Your task to perform on an android device: change notifications settings Image 0: 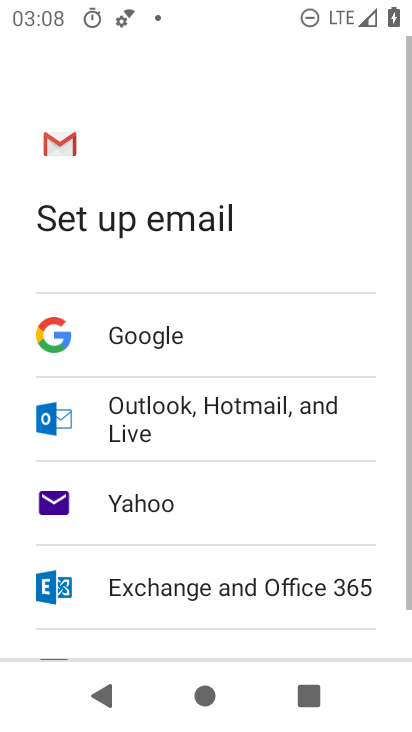
Step 0: press home button
Your task to perform on an android device: change notifications settings Image 1: 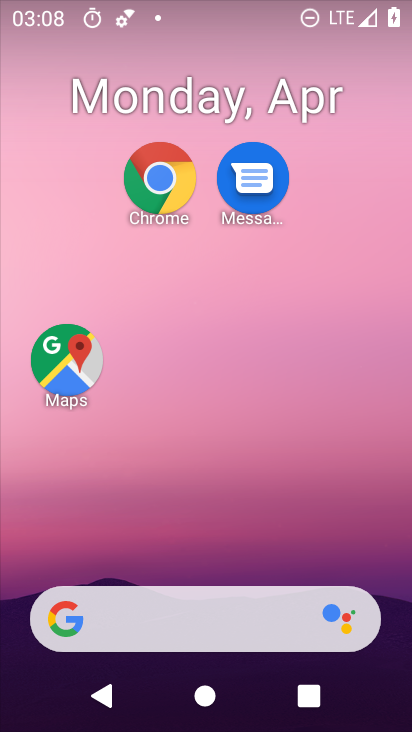
Step 1: drag from (269, 587) to (366, 1)
Your task to perform on an android device: change notifications settings Image 2: 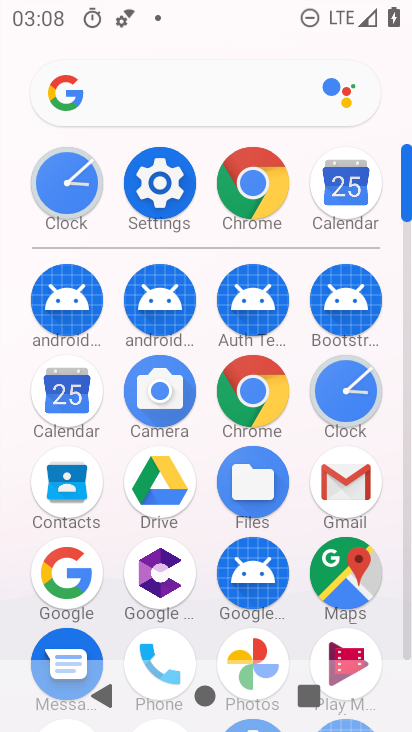
Step 2: drag from (215, 485) to (264, 70)
Your task to perform on an android device: change notifications settings Image 3: 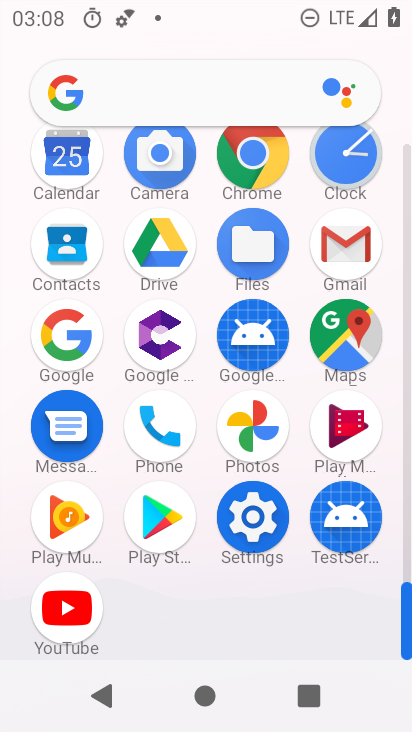
Step 3: click (244, 532)
Your task to perform on an android device: change notifications settings Image 4: 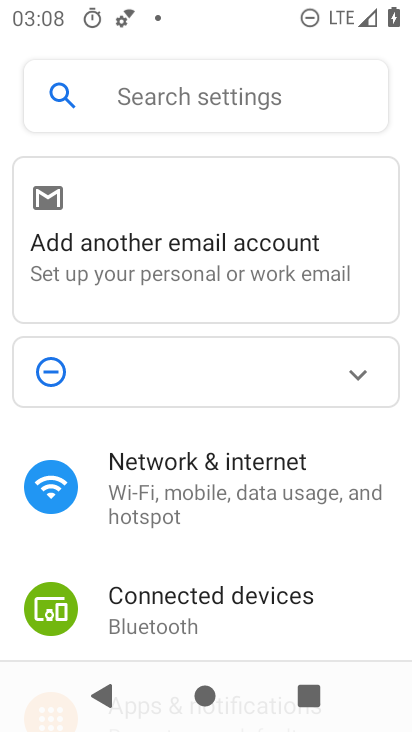
Step 4: drag from (278, 583) to (302, 79)
Your task to perform on an android device: change notifications settings Image 5: 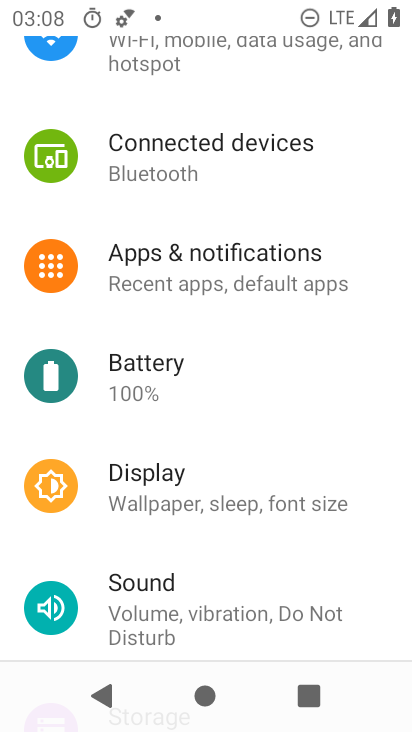
Step 5: click (281, 277)
Your task to perform on an android device: change notifications settings Image 6: 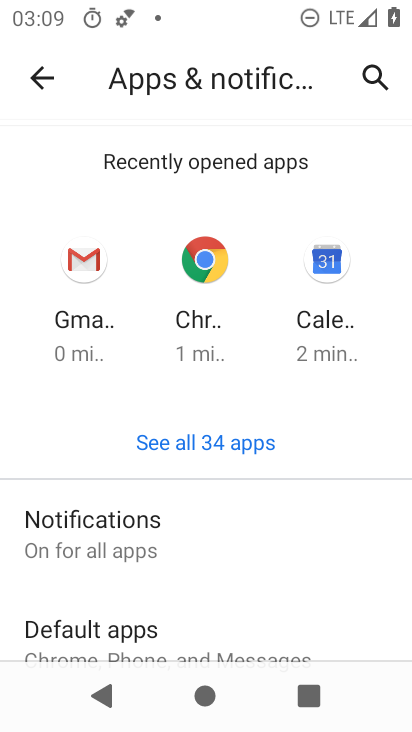
Step 6: drag from (166, 614) to (197, 175)
Your task to perform on an android device: change notifications settings Image 7: 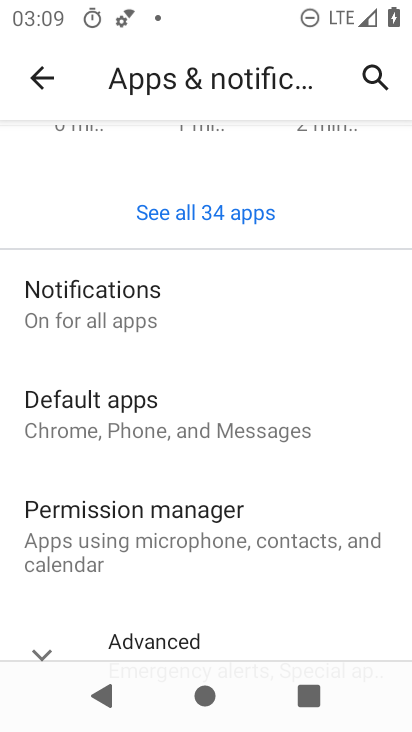
Step 7: click (177, 308)
Your task to perform on an android device: change notifications settings Image 8: 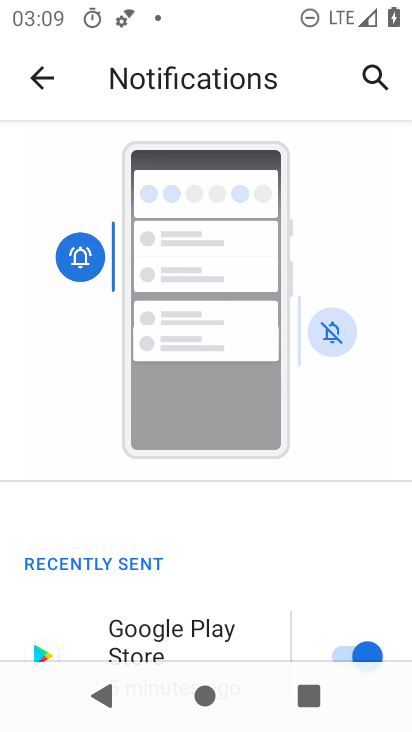
Step 8: click (88, 253)
Your task to perform on an android device: change notifications settings Image 9: 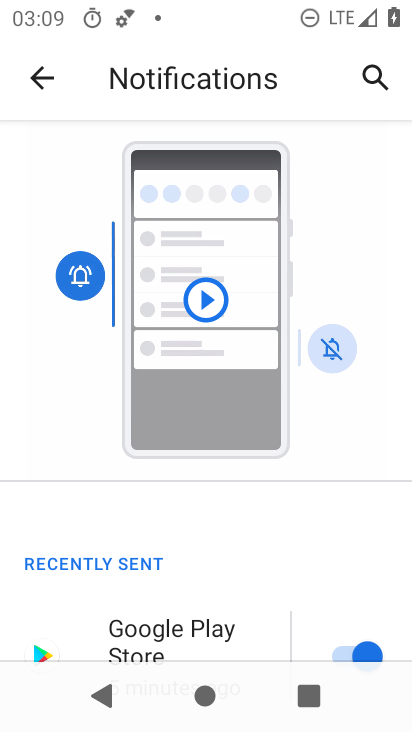
Step 9: task complete